Your task to perform on an android device: Open network settings Image 0: 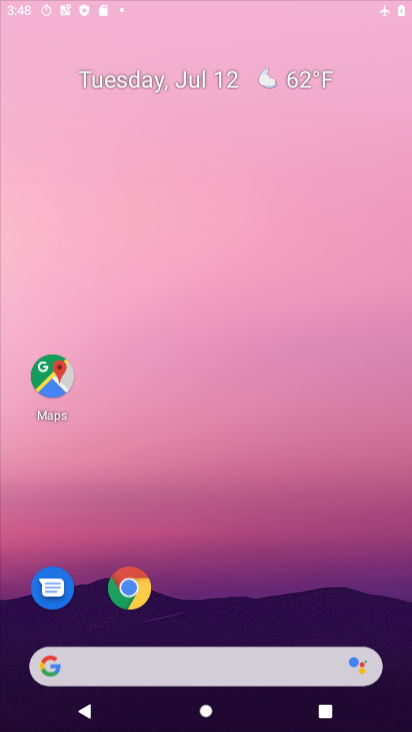
Step 0: click (133, 592)
Your task to perform on an android device: Open network settings Image 1: 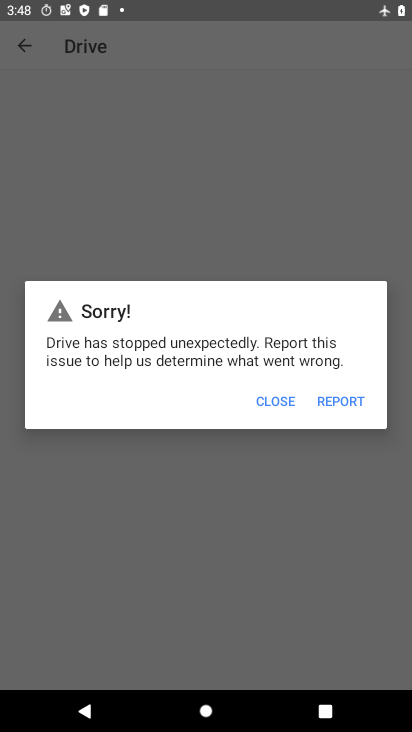
Step 1: click (277, 403)
Your task to perform on an android device: Open network settings Image 2: 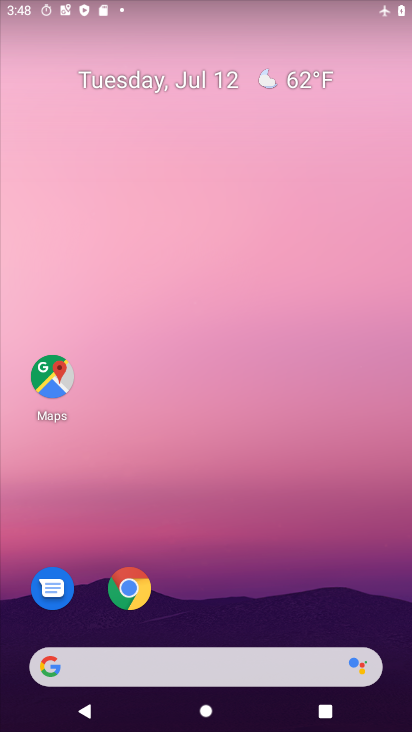
Step 2: drag from (224, 609) to (228, 42)
Your task to perform on an android device: Open network settings Image 3: 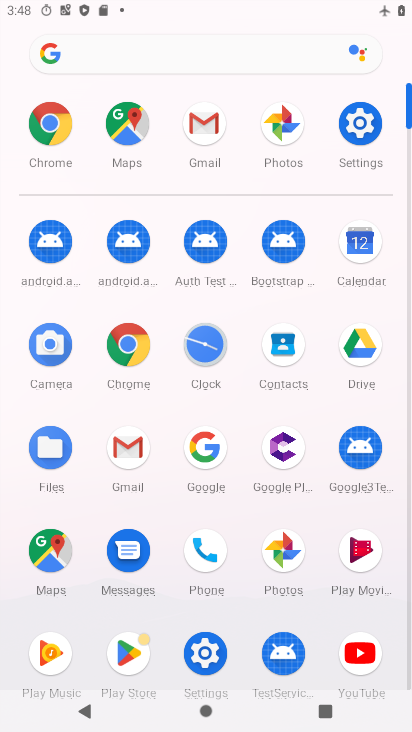
Step 3: click (353, 141)
Your task to perform on an android device: Open network settings Image 4: 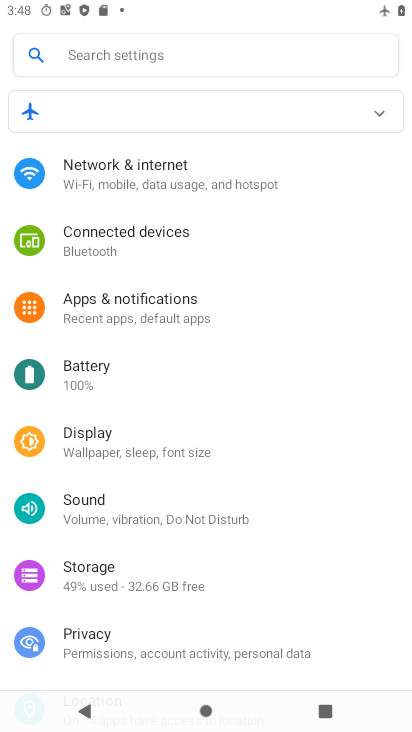
Step 4: click (127, 177)
Your task to perform on an android device: Open network settings Image 5: 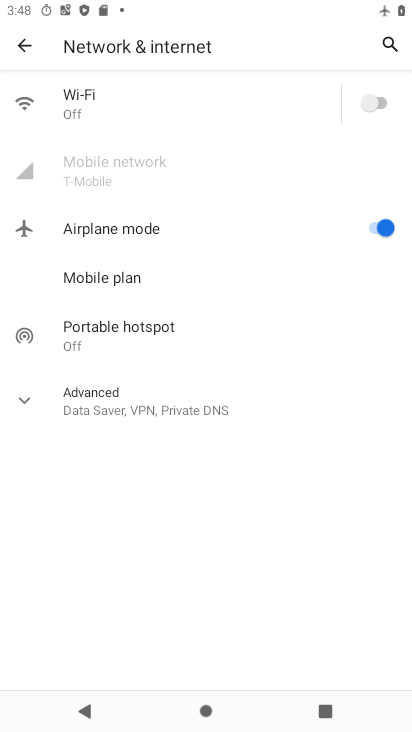
Step 5: task complete